Your task to perform on an android device: create a new album in the google photos Image 0: 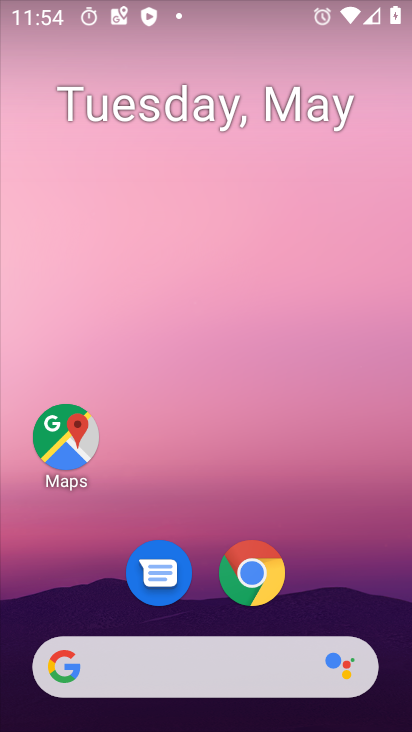
Step 0: drag from (285, 651) to (379, 236)
Your task to perform on an android device: create a new album in the google photos Image 1: 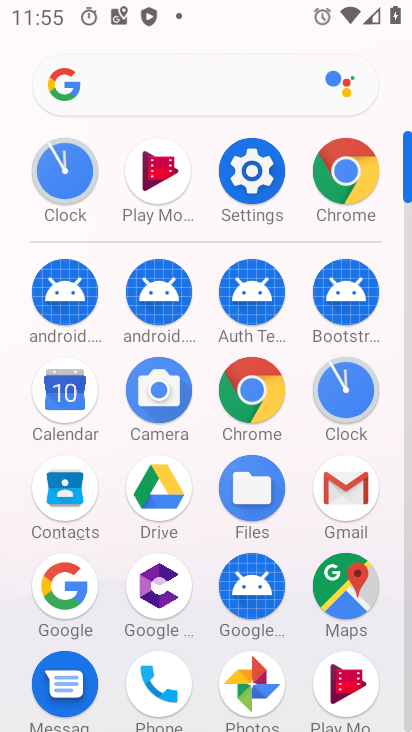
Step 1: click (263, 653)
Your task to perform on an android device: create a new album in the google photos Image 2: 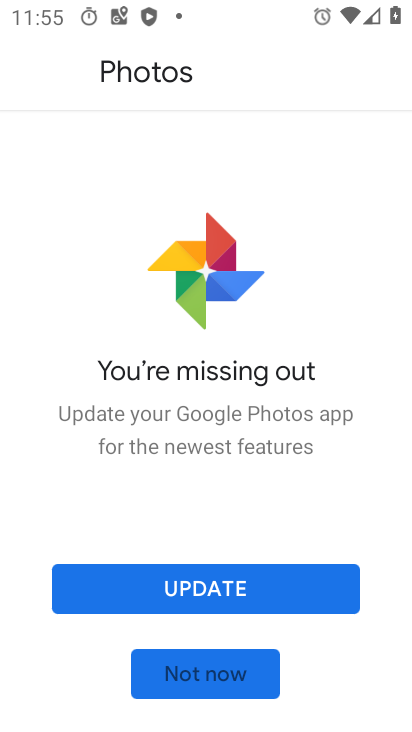
Step 2: click (242, 661)
Your task to perform on an android device: create a new album in the google photos Image 3: 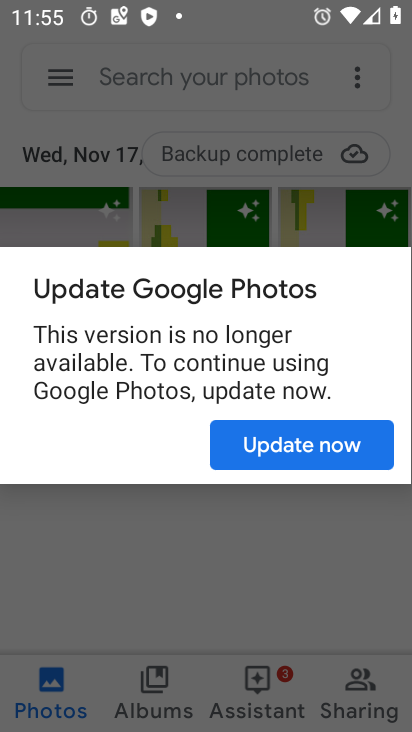
Step 3: click (290, 462)
Your task to perform on an android device: create a new album in the google photos Image 4: 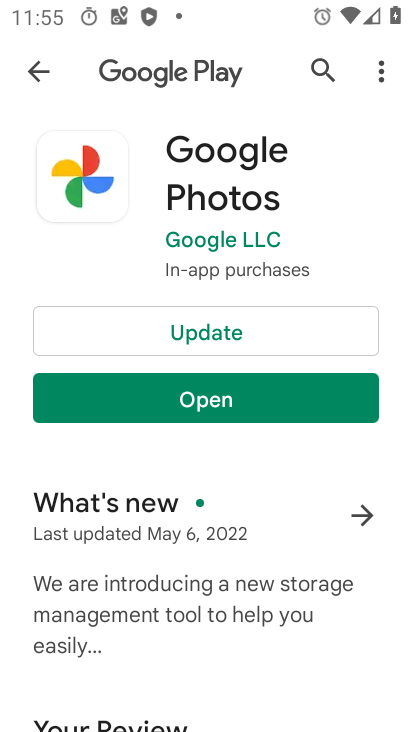
Step 4: click (200, 403)
Your task to perform on an android device: create a new album in the google photos Image 5: 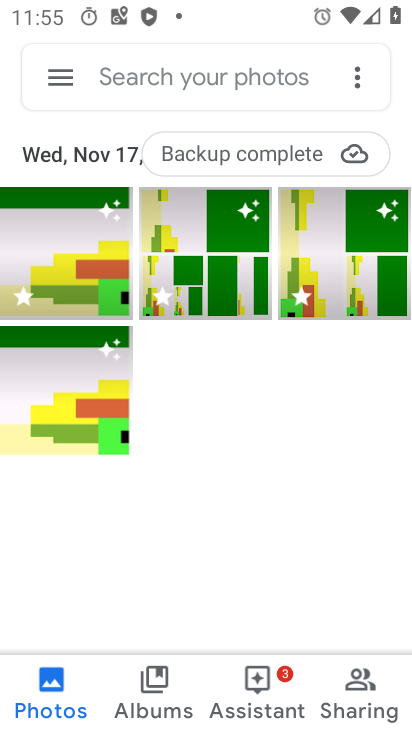
Step 5: click (101, 402)
Your task to perform on an android device: create a new album in the google photos Image 6: 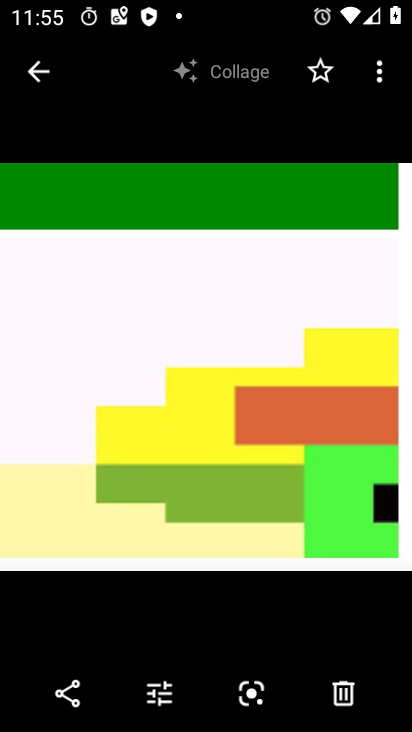
Step 6: click (383, 87)
Your task to perform on an android device: create a new album in the google photos Image 7: 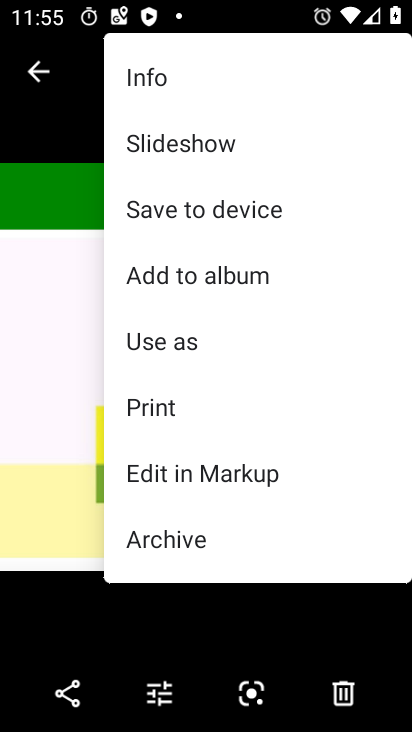
Step 7: click (177, 273)
Your task to perform on an android device: create a new album in the google photos Image 8: 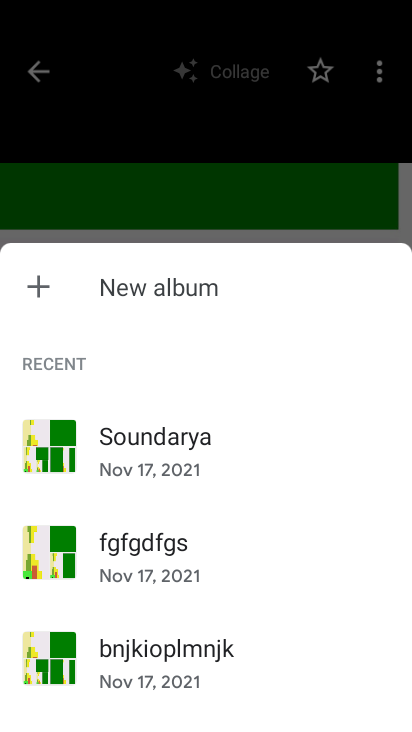
Step 8: click (143, 283)
Your task to perform on an android device: create a new album in the google photos Image 9: 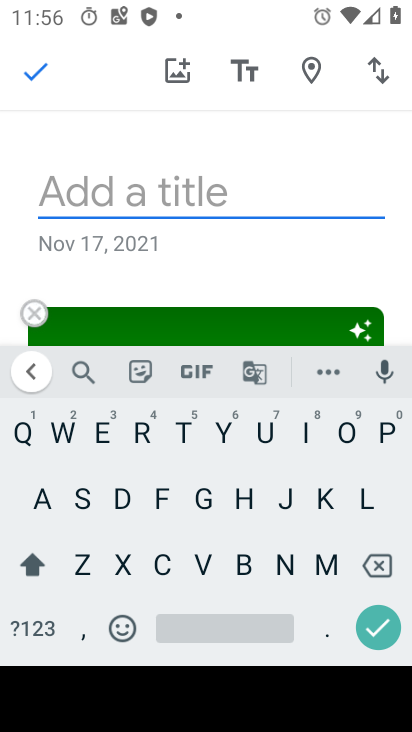
Step 9: click (102, 508)
Your task to perform on an android device: create a new album in the google photos Image 10: 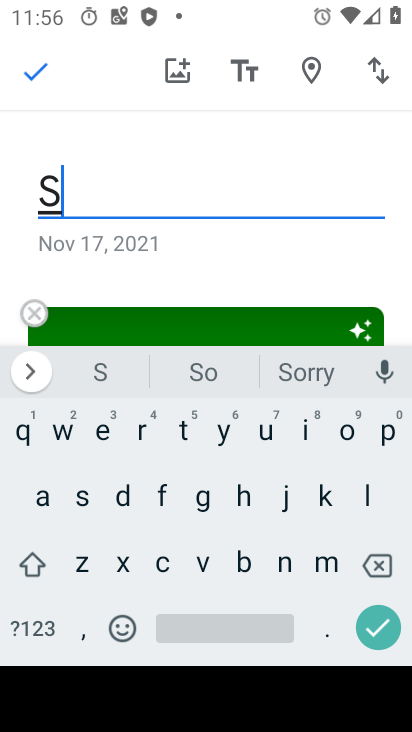
Step 10: click (113, 500)
Your task to perform on an android device: create a new album in the google photos Image 11: 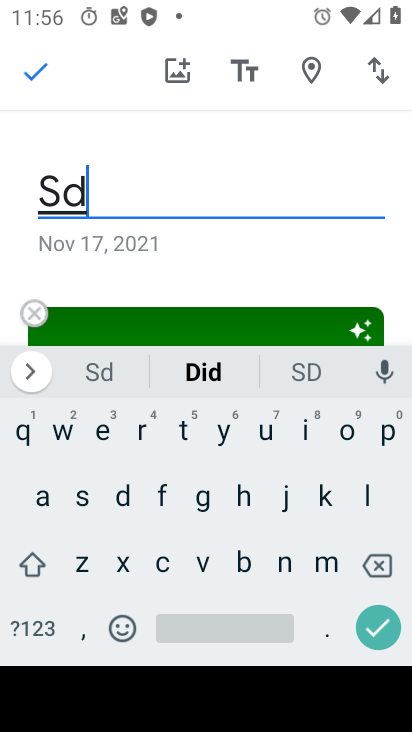
Step 11: click (39, 92)
Your task to perform on an android device: create a new album in the google photos Image 12: 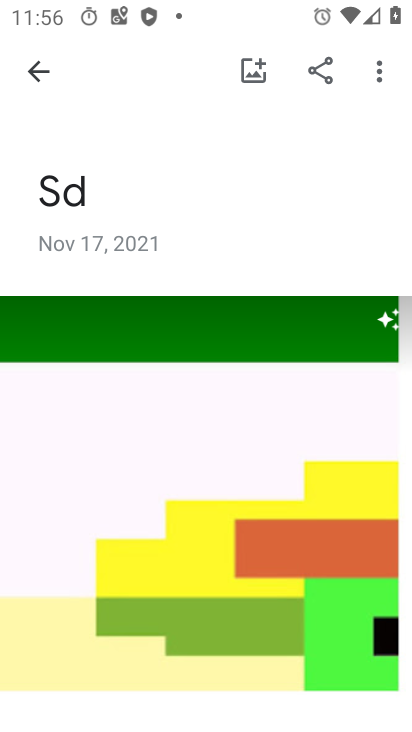
Step 12: task complete